Your task to perform on an android device: Show me recent news Image 0: 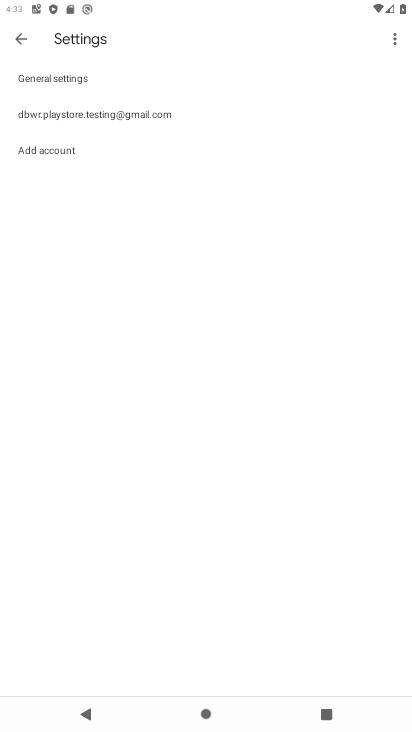
Step 0: press home button
Your task to perform on an android device: Show me recent news Image 1: 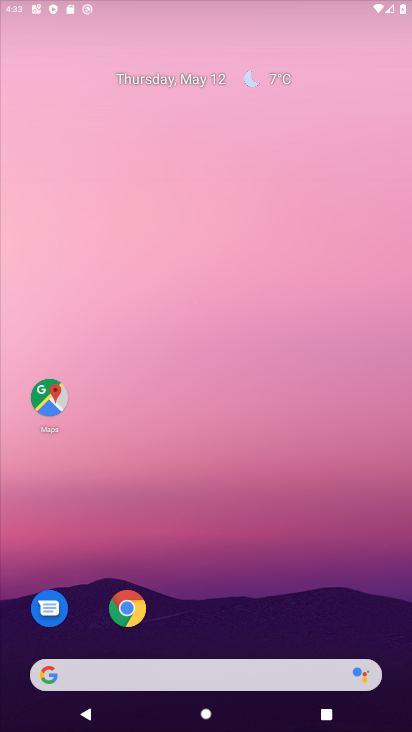
Step 1: click (132, 682)
Your task to perform on an android device: Show me recent news Image 2: 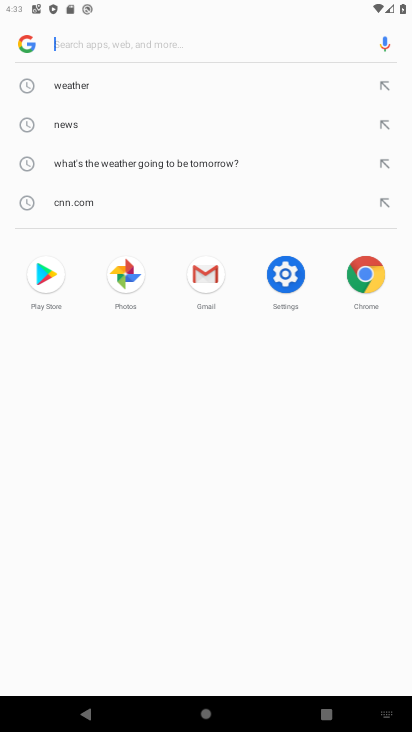
Step 2: click (75, 125)
Your task to perform on an android device: Show me recent news Image 3: 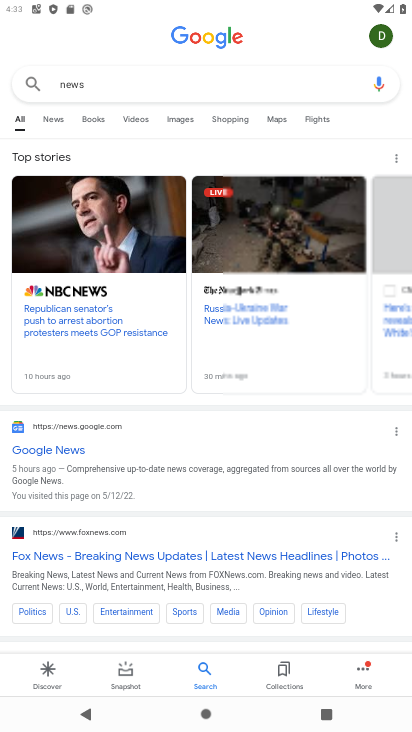
Step 3: task complete